Your task to perform on an android device: Go to CNN.com Image 0: 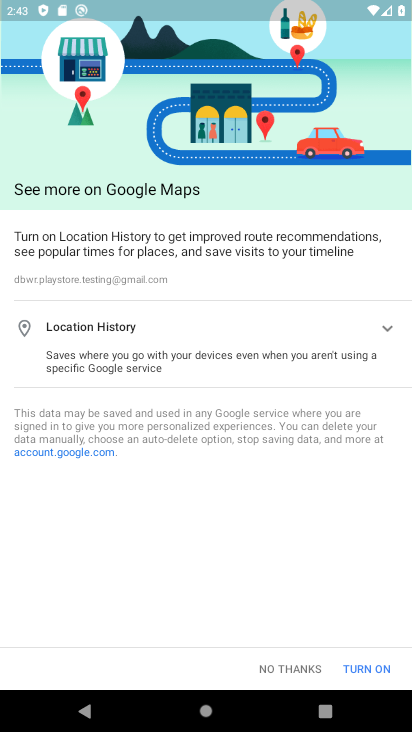
Step 0: press back button
Your task to perform on an android device: Go to CNN.com Image 1: 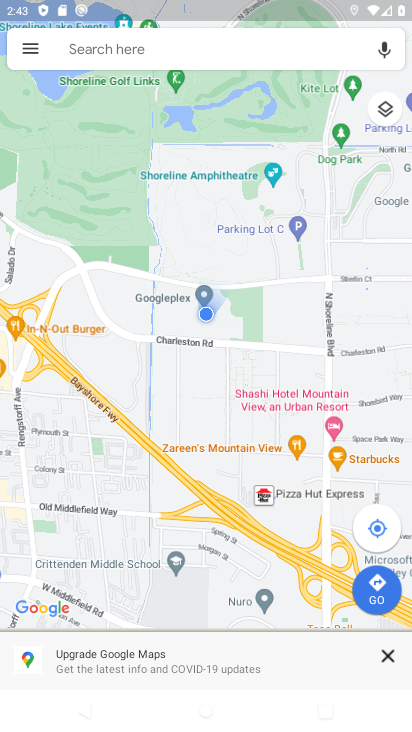
Step 1: press home button
Your task to perform on an android device: Go to CNN.com Image 2: 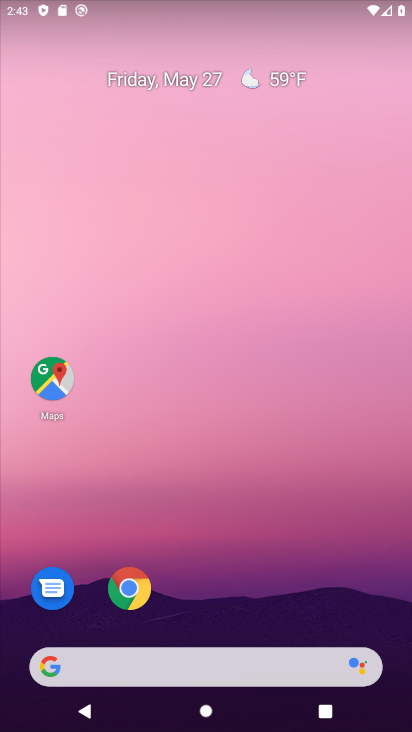
Step 2: drag from (272, 675) to (167, 155)
Your task to perform on an android device: Go to CNN.com Image 3: 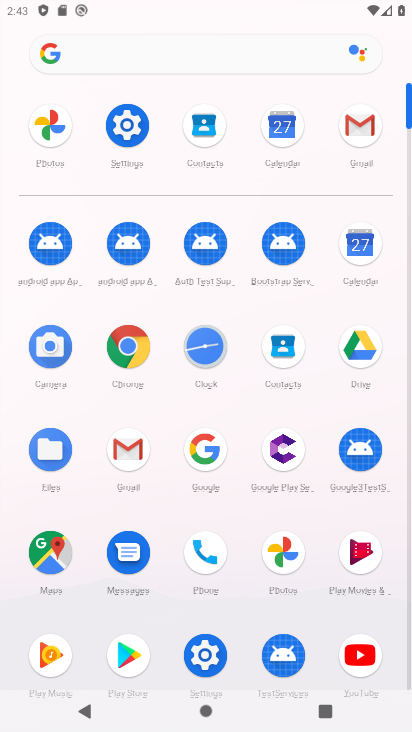
Step 3: click (131, 345)
Your task to perform on an android device: Go to CNN.com Image 4: 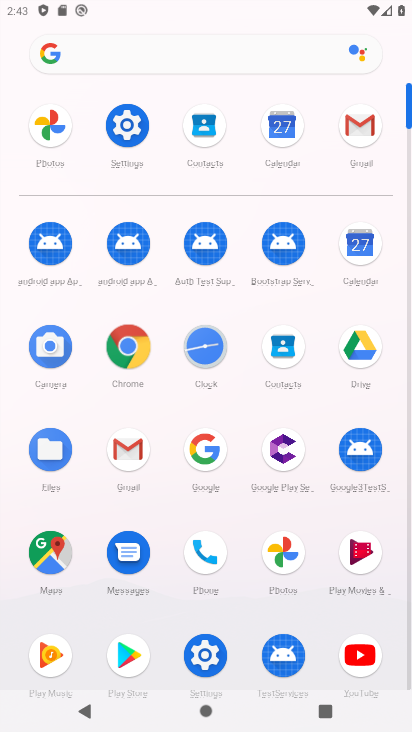
Step 4: click (131, 345)
Your task to perform on an android device: Go to CNN.com Image 5: 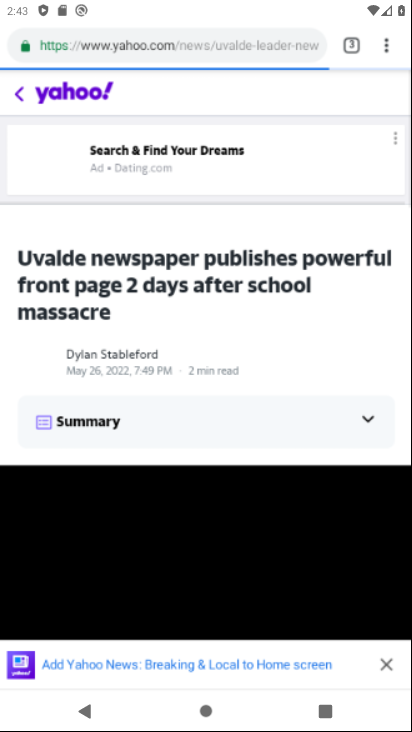
Step 5: click (131, 345)
Your task to perform on an android device: Go to CNN.com Image 6: 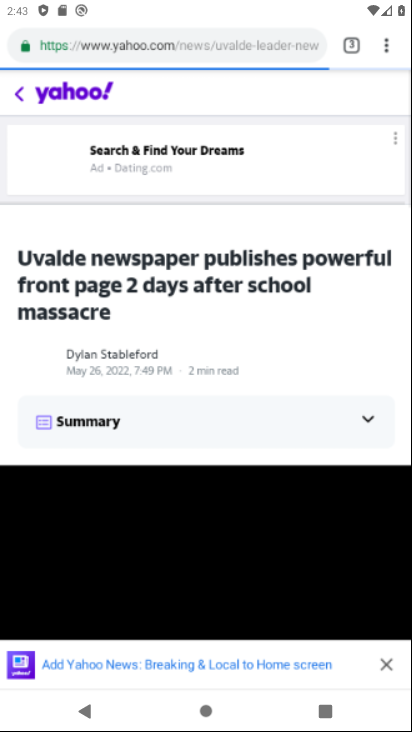
Step 6: click (131, 345)
Your task to perform on an android device: Go to CNN.com Image 7: 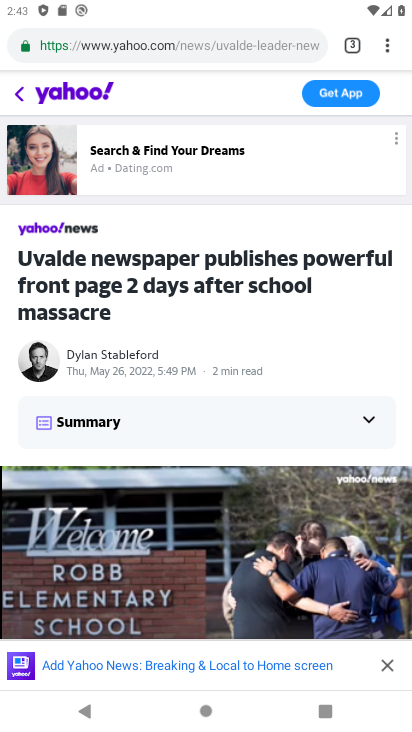
Step 7: click (385, 46)
Your task to perform on an android device: Go to CNN.com Image 8: 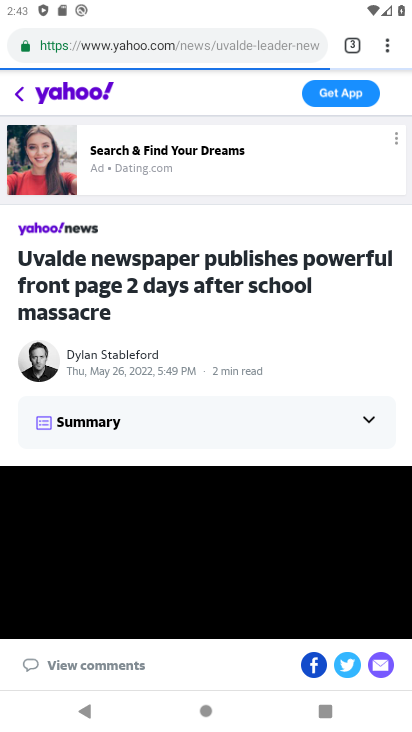
Step 8: click (383, 40)
Your task to perform on an android device: Go to CNN.com Image 9: 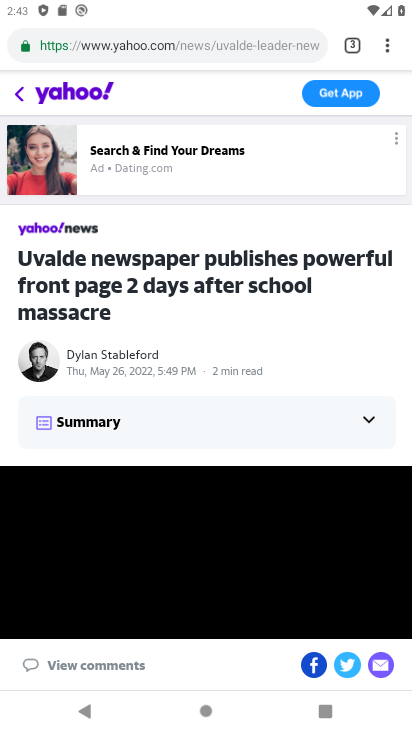
Step 9: drag from (390, 46) to (209, 84)
Your task to perform on an android device: Go to CNN.com Image 10: 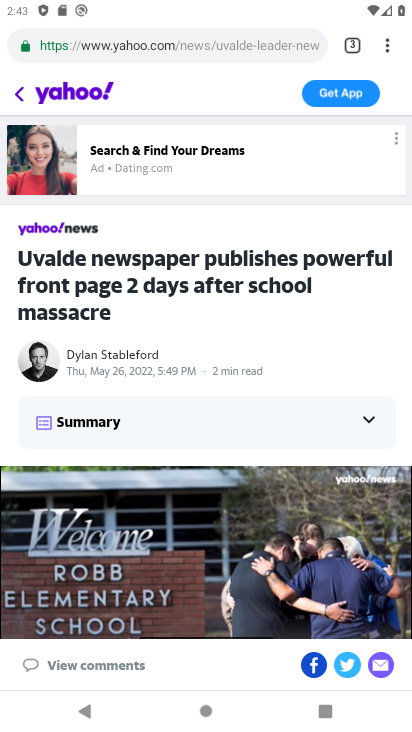
Step 10: click (207, 82)
Your task to perform on an android device: Go to CNN.com Image 11: 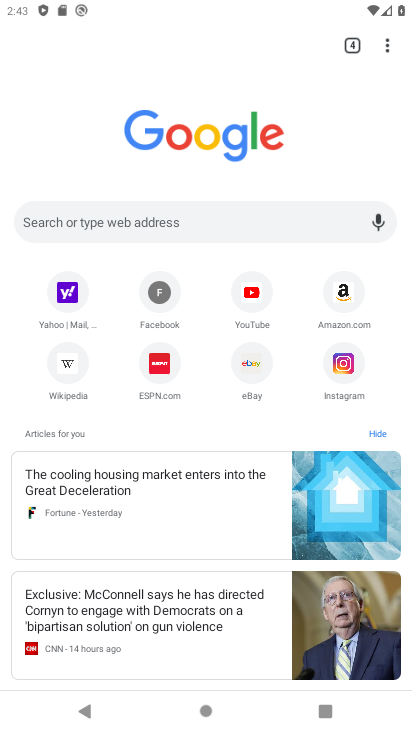
Step 11: click (53, 223)
Your task to perform on an android device: Go to CNN.com Image 12: 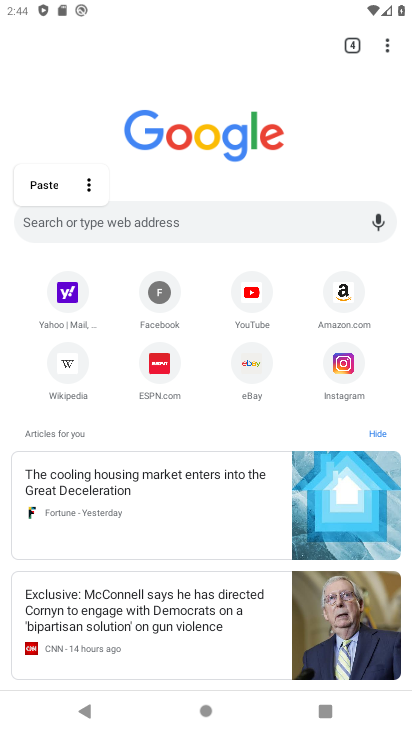
Step 12: type "cnn.com"
Your task to perform on an android device: Go to CNN.com Image 13: 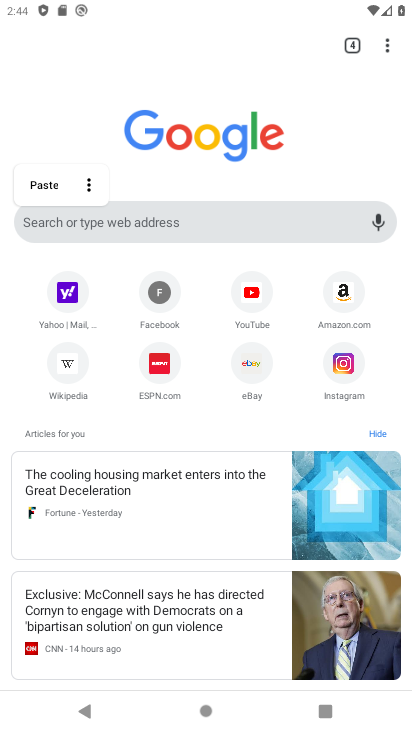
Step 13: type "c"
Your task to perform on an android device: Go to CNN.com Image 14: 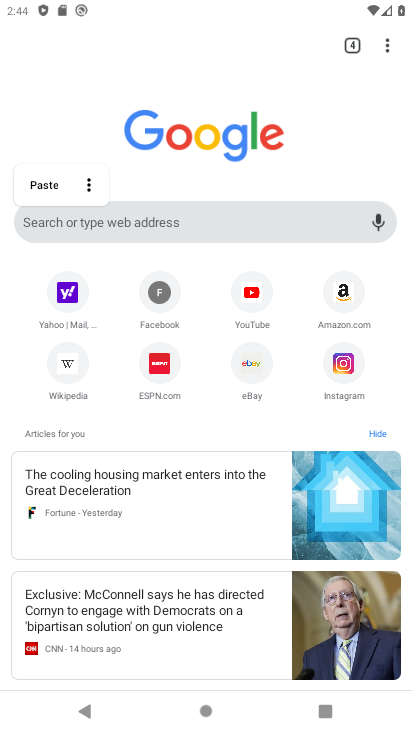
Step 14: click (33, 219)
Your task to perform on an android device: Go to CNN.com Image 15: 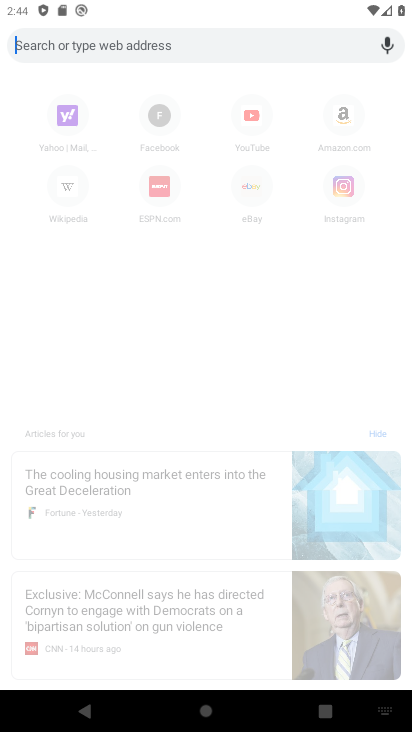
Step 15: click (17, 221)
Your task to perform on an android device: Go to CNN.com Image 16: 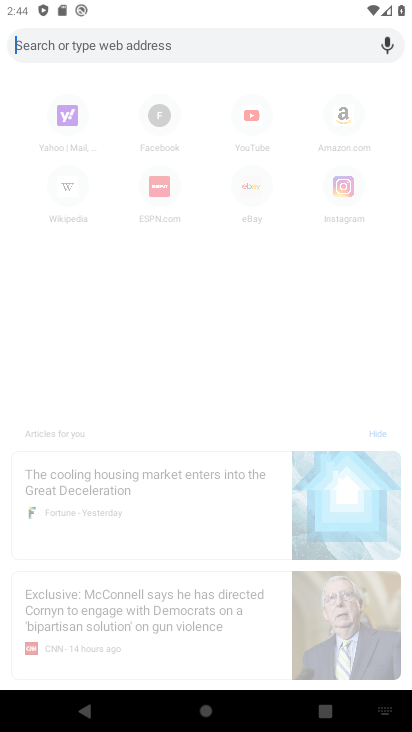
Step 16: click (17, 221)
Your task to perform on an android device: Go to CNN.com Image 17: 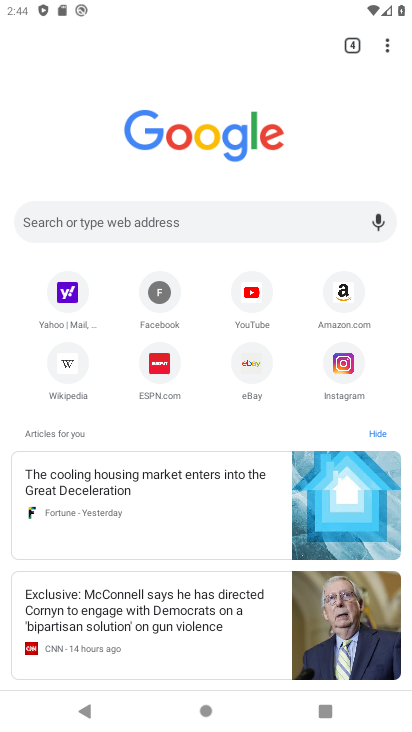
Step 17: type "cnn.com"
Your task to perform on an android device: Go to CNN.com Image 18: 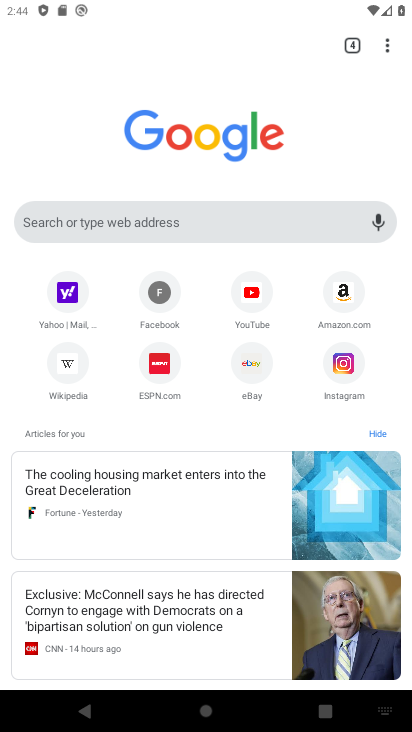
Step 18: click (52, 221)
Your task to perform on an android device: Go to CNN.com Image 19: 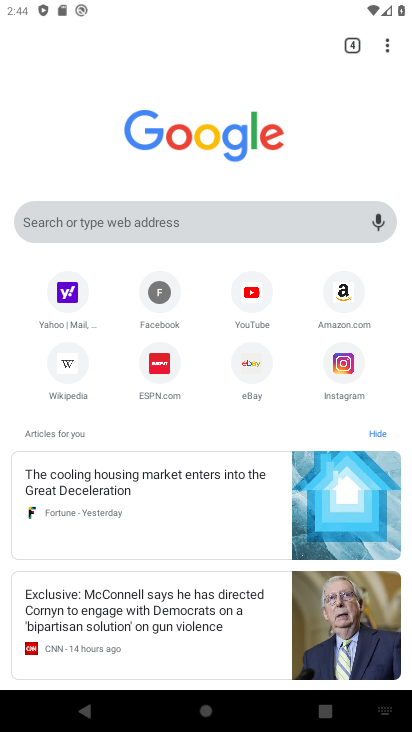
Step 19: click (52, 221)
Your task to perform on an android device: Go to CNN.com Image 20: 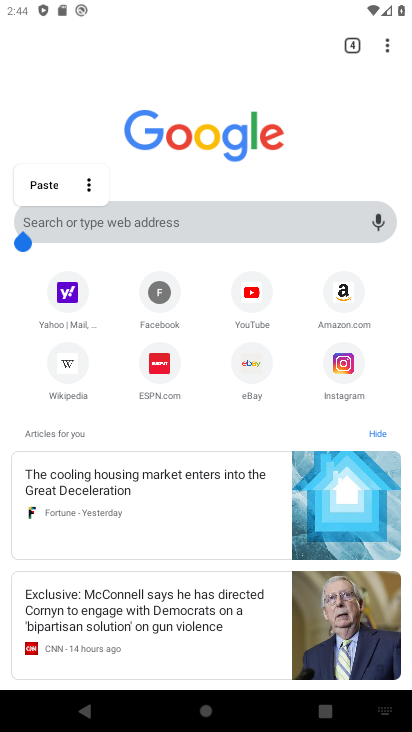
Step 20: click (50, 218)
Your task to perform on an android device: Go to CNN.com Image 21: 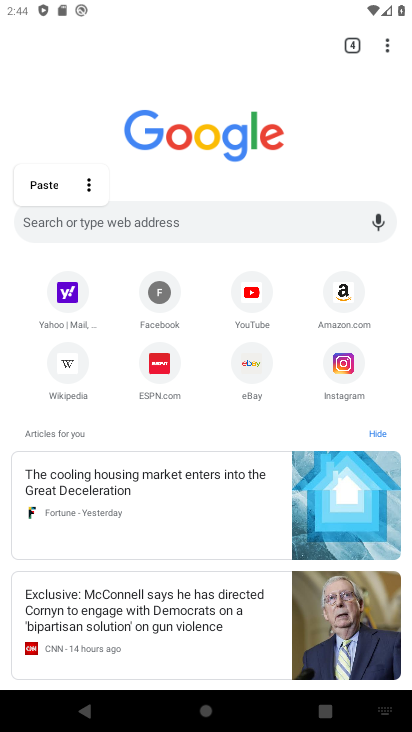
Step 21: type "cnn.com"
Your task to perform on an android device: Go to CNN.com Image 22: 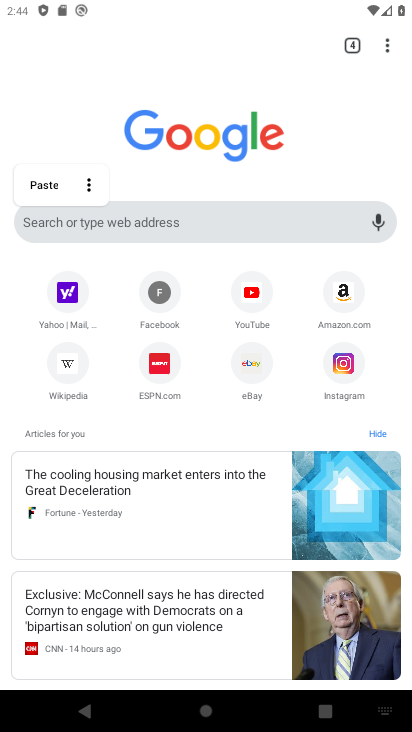
Step 22: click (47, 236)
Your task to perform on an android device: Go to CNN.com Image 23: 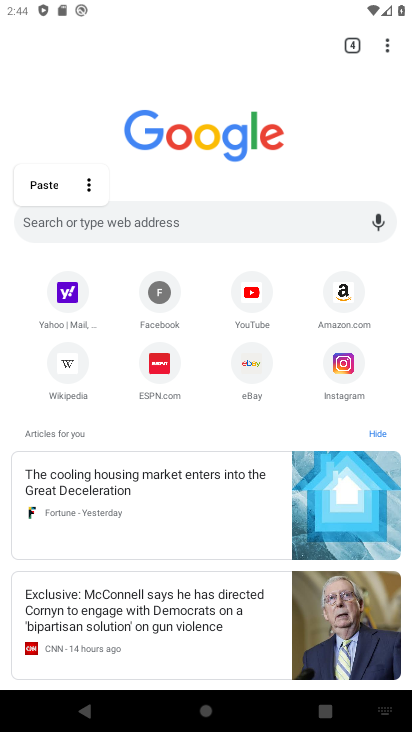
Step 23: click (38, 217)
Your task to perform on an android device: Go to CNN.com Image 24: 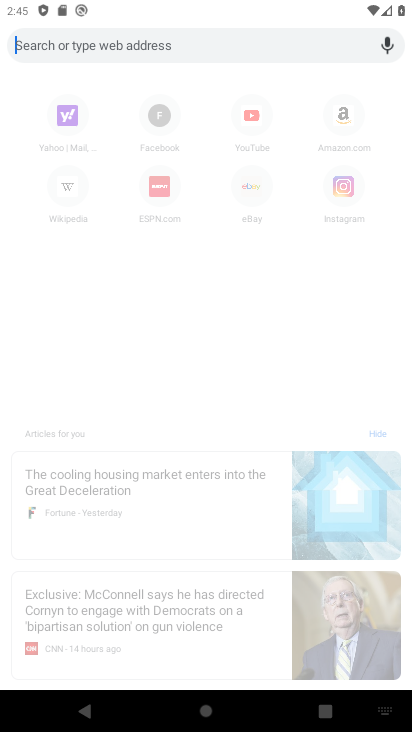
Step 24: type "cnn.com"
Your task to perform on an android device: Go to CNN.com Image 25: 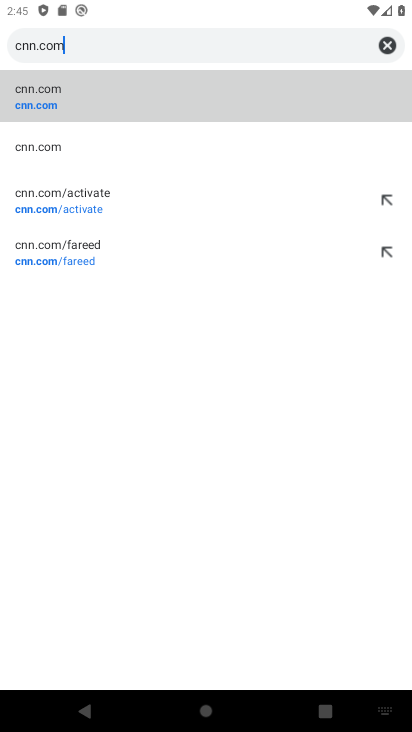
Step 25: click (25, 102)
Your task to perform on an android device: Go to CNN.com Image 26: 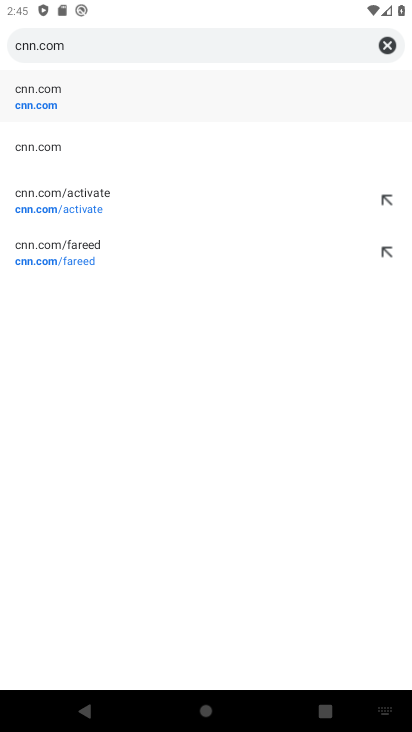
Step 26: click (25, 102)
Your task to perform on an android device: Go to CNN.com Image 27: 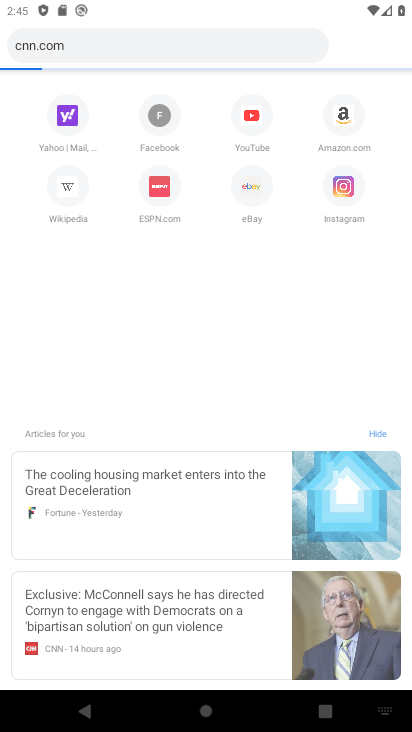
Step 27: click (25, 102)
Your task to perform on an android device: Go to CNN.com Image 28: 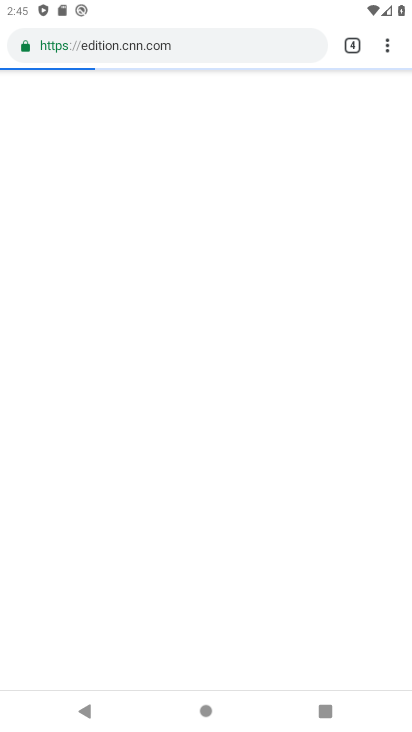
Step 28: click (27, 102)
Your task to perform on an android device: Go to CNN.com Image 29: 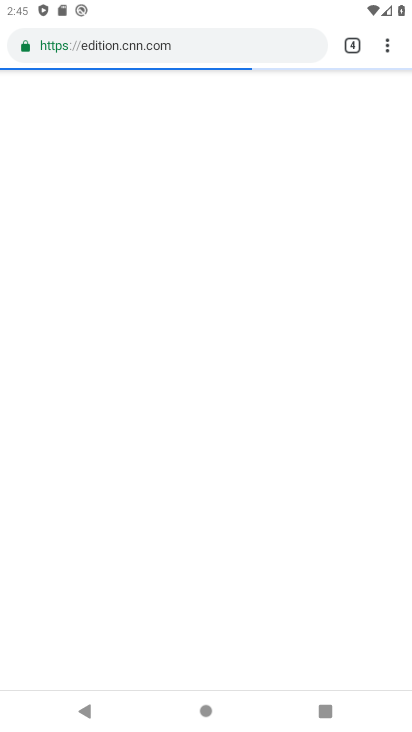
Step 29: task complete